Your task to perform on an android device: add a label to a message in the gmail app Image 0: 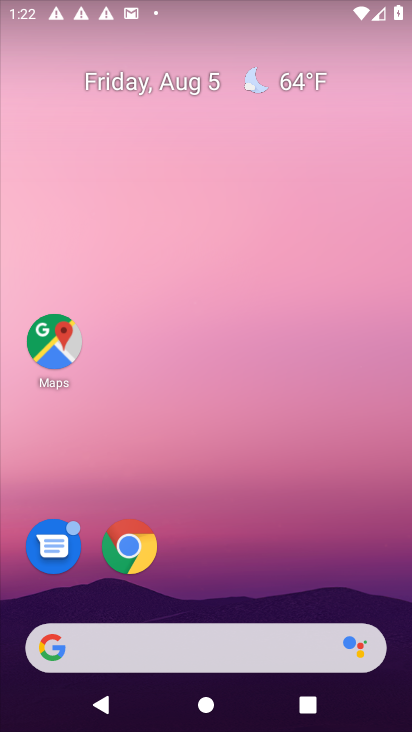
Step 0: drag from (219, 597) to (206, 0)
Your task to perform on an android device: add a label to a message in the gmail app Image 1: 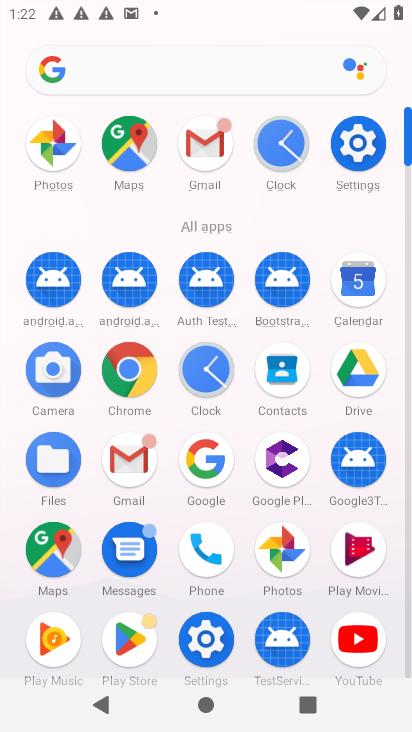
Step 1: click (126, 451)
Your task to perform on an android device: add a label to a message in the gmail app Image 2: 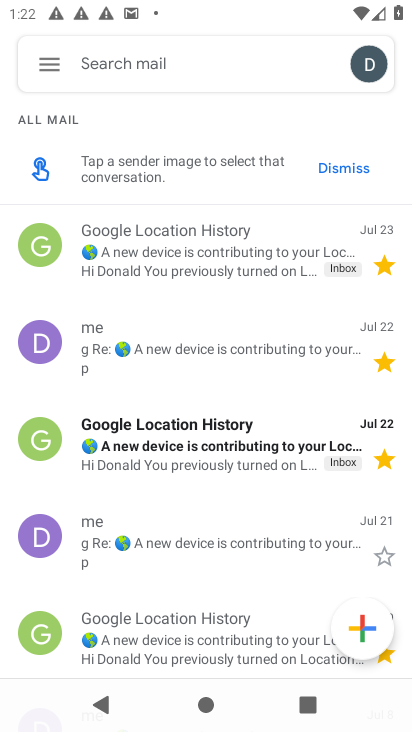
Step 2: click (34, 238)
Your task to perform on an android device: add a label to a message in the gmail app Image 3: 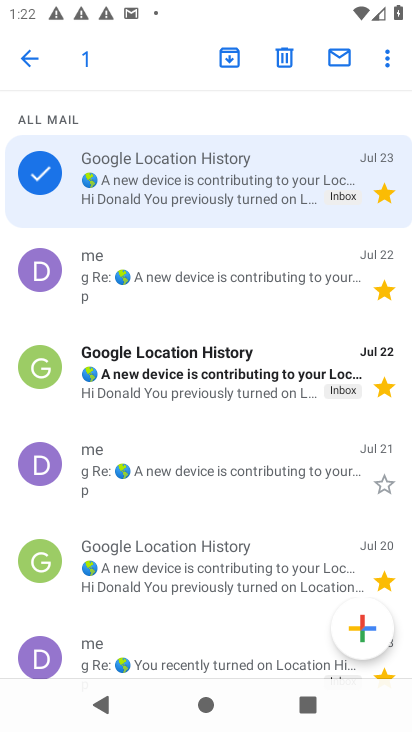
Step 3: click (392, 56)
Your task to perform on an android device: add a label to a message in the gmail app Image 4: 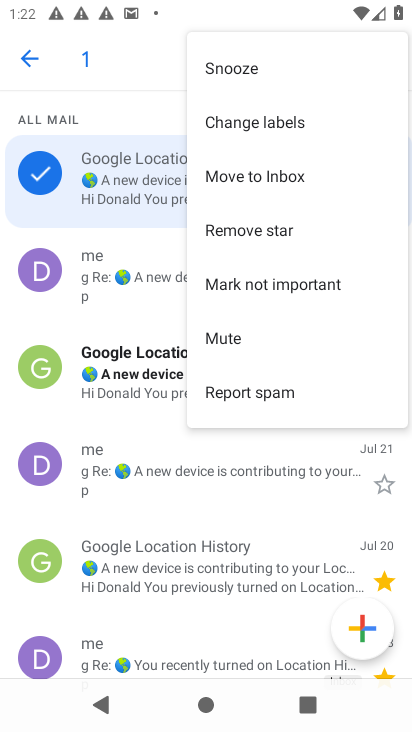
Step 4: click (262, 125)
Your task to perform on an android device: add a label to a message in the gmail app Image 5: 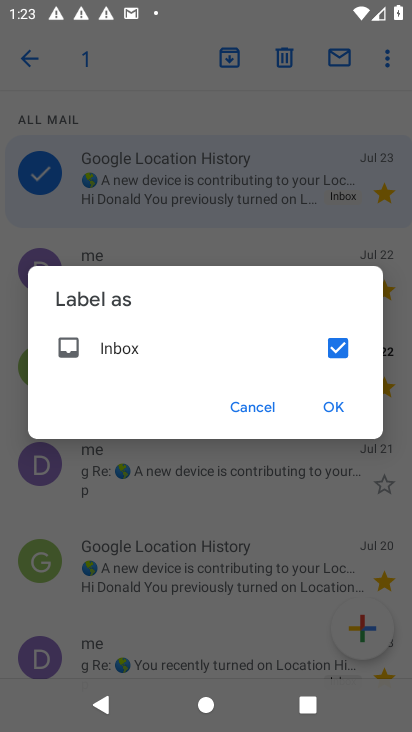
Step 5: click (329, 349)
Your task to perform on an android device: add a label to a message in the gmail app Image 6: 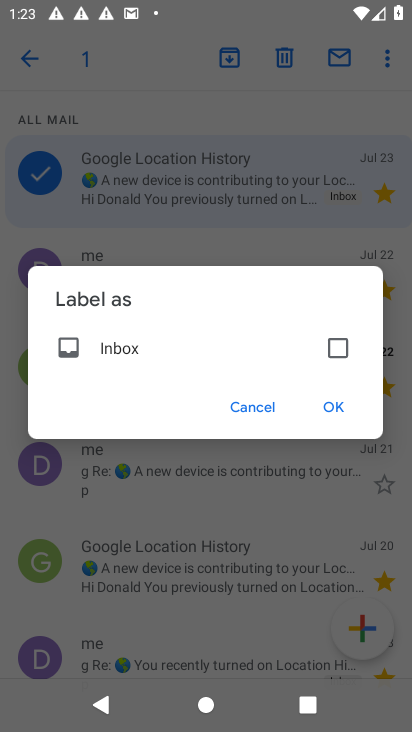
Step 6: click (335, 407)
Your task to perform on an android device: add a label to a message in the gmail app Image 7: 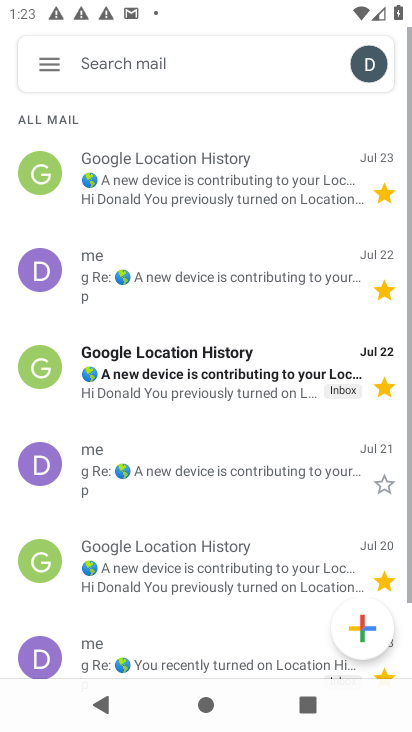
Step 7: task complete